Your task to perform on an android device: Open location settings Image 0: 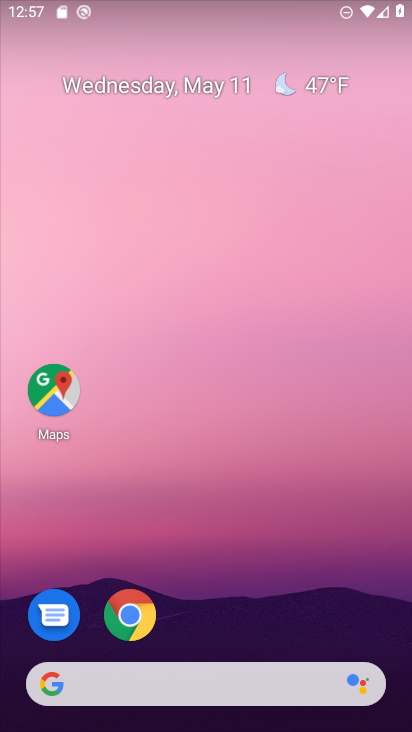
Step 0: drag from (336, 586) to (391, 113)
Your task to perform on an android device: Open location settings Image 1: 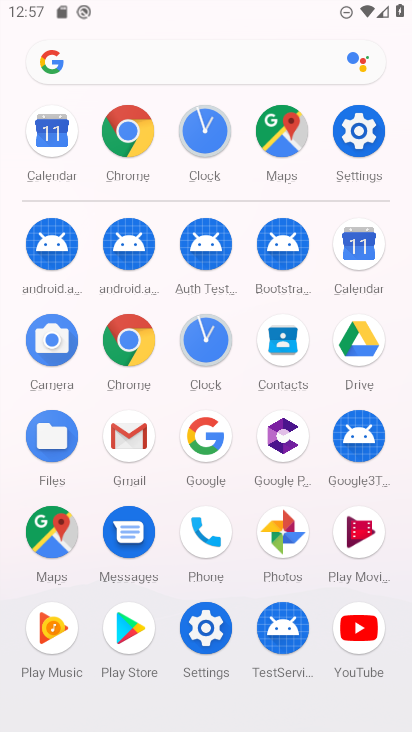
Step 1: click (373, 128)
Your task to perform on an android device: Open location settings Image 2: 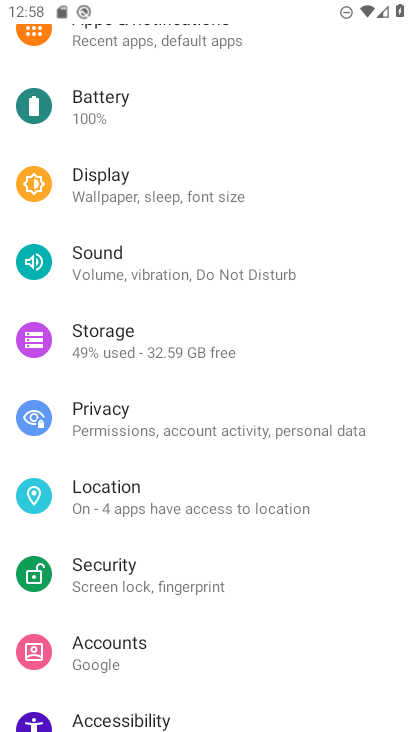
Step 2: click (136, 458)
Your task to perform on an android device: Open location settings Image 3: 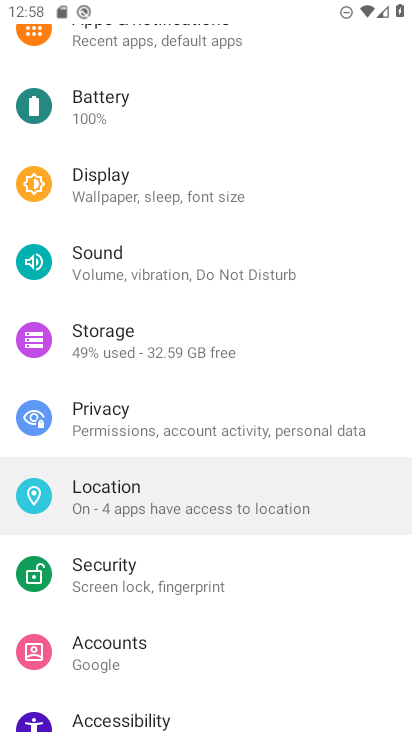
Step 3: click (125, 481)
Your task to perform on an android device: Open location settings Image 4: 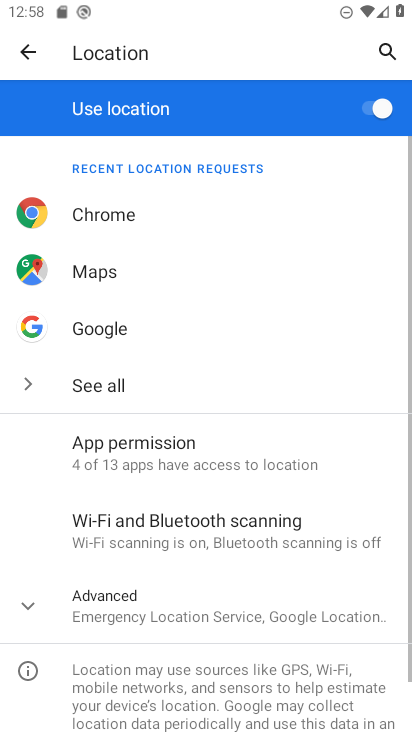
Step 4: task complete